Your task to perform on an android device: Show me the alarms in the clock app Image 0: 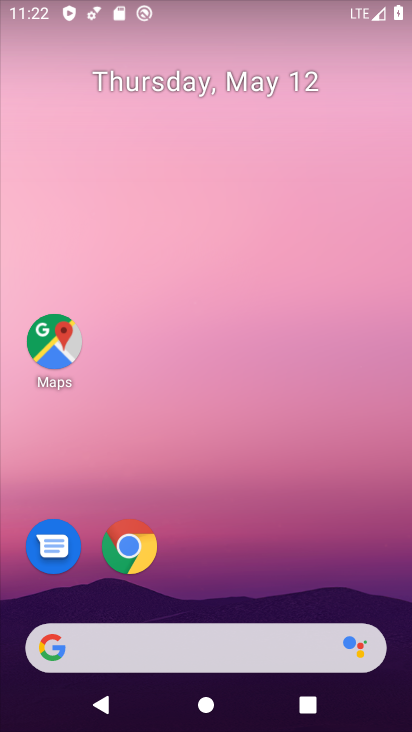
Step 0: drag from (276, 280) to (286, 158)
Your task to perform on an android device: Show me the alarms in the clock app Image 1: 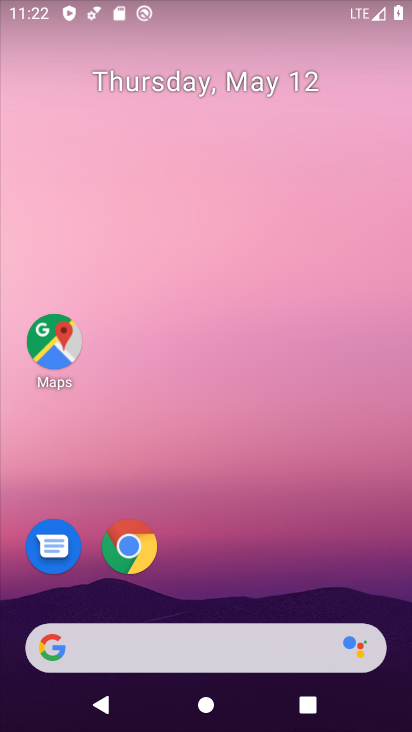
Step 1: drag from (254, 567) to (148, 73)
Your task to perform on an android device: Show me the alarms in the clock app Image 2: 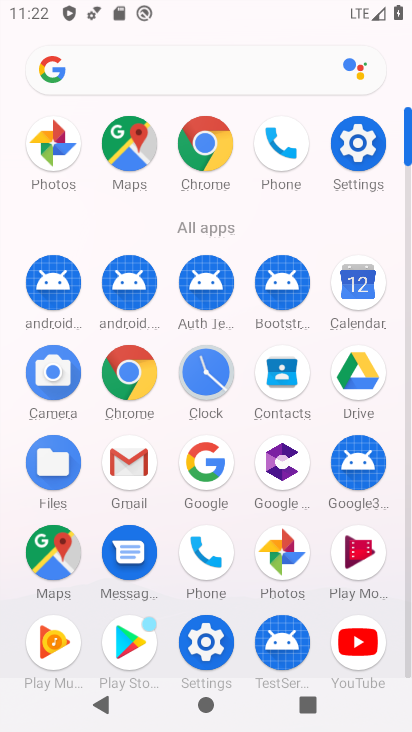
Step 2: click (214, 363)
Your task to perform on an android device: Show me the alarms in the clock app Image 3: 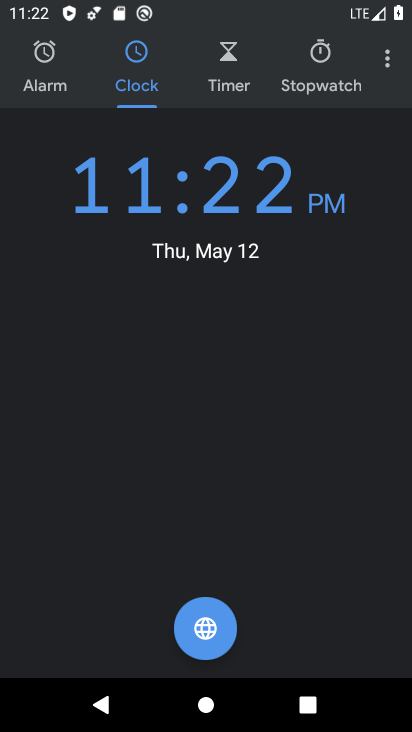
Step 3: click (53, 66)
Your task to perform on an android device: Show me the alarms in the clock app Image 4: 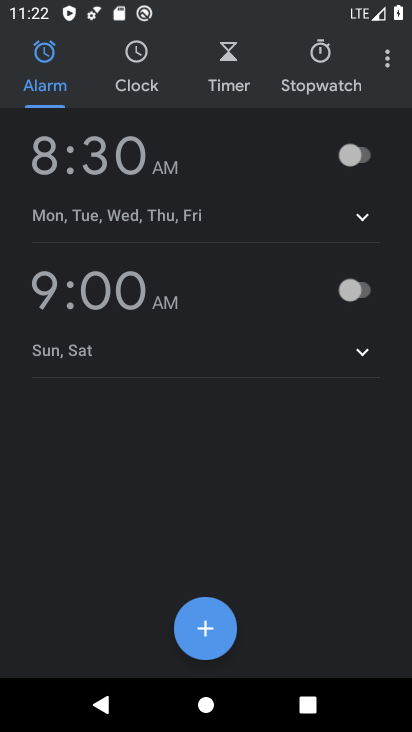
Step 4: task complete